Your task to perform on an android device: Open network settings Image 0: 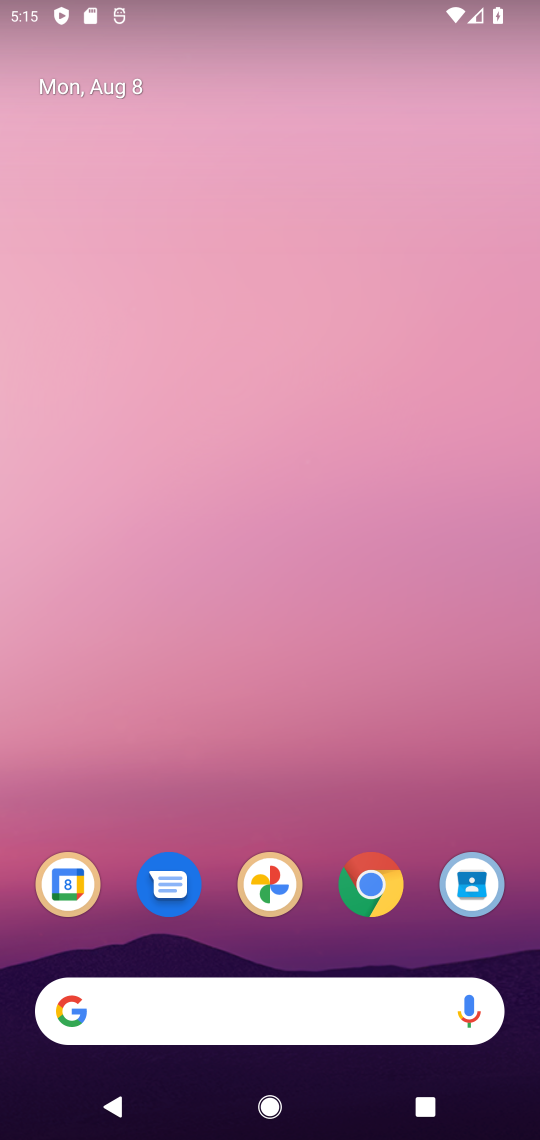
Step 0: drag from (265, 14) to (326, 13)
Your task to perform on an android device: Open network settings Image 1: 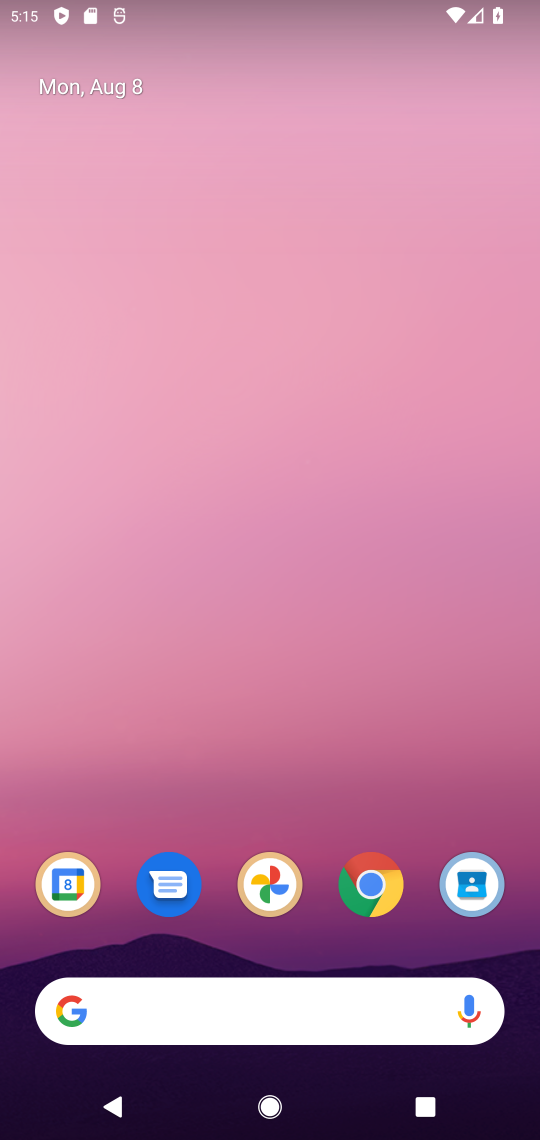
Step 1: drag from (320, 845) to (314, 98)
Your task to perform on an android device: Open network settings Image 2: 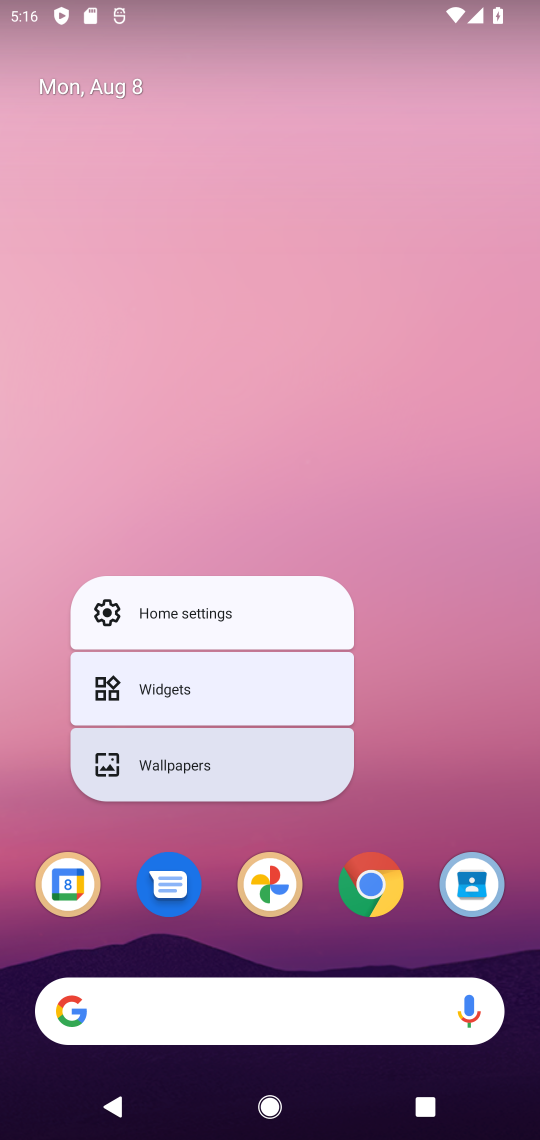
Step 2: drag from (415, 829) to (384, 237)
Your task to perform on an android device: Open network settings Image 3: 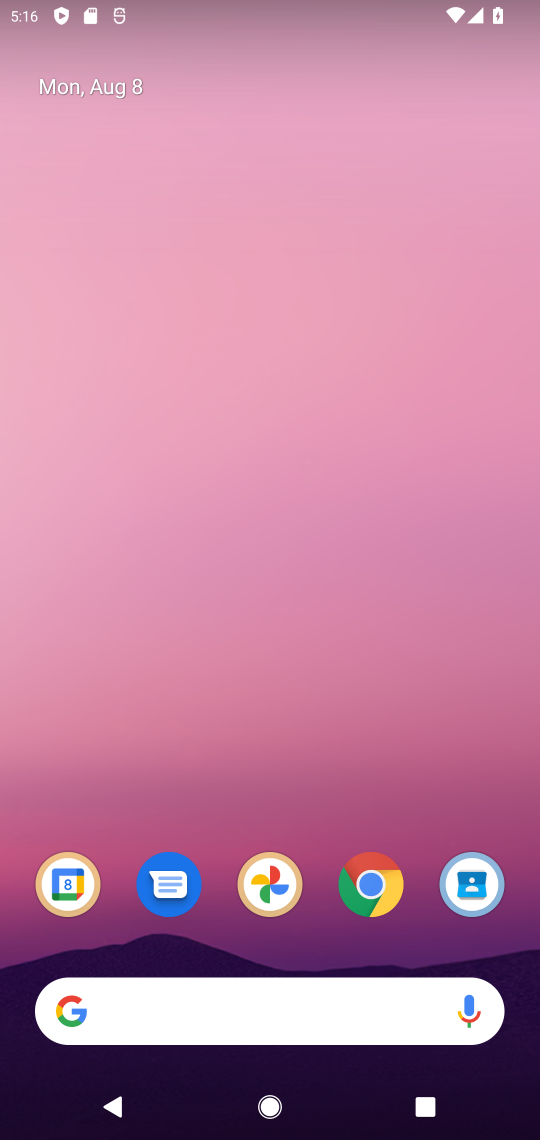
Step 3: drag from (330, 824) to (282, 58)
Your task to perform on an android device: Open network settings Image 4: 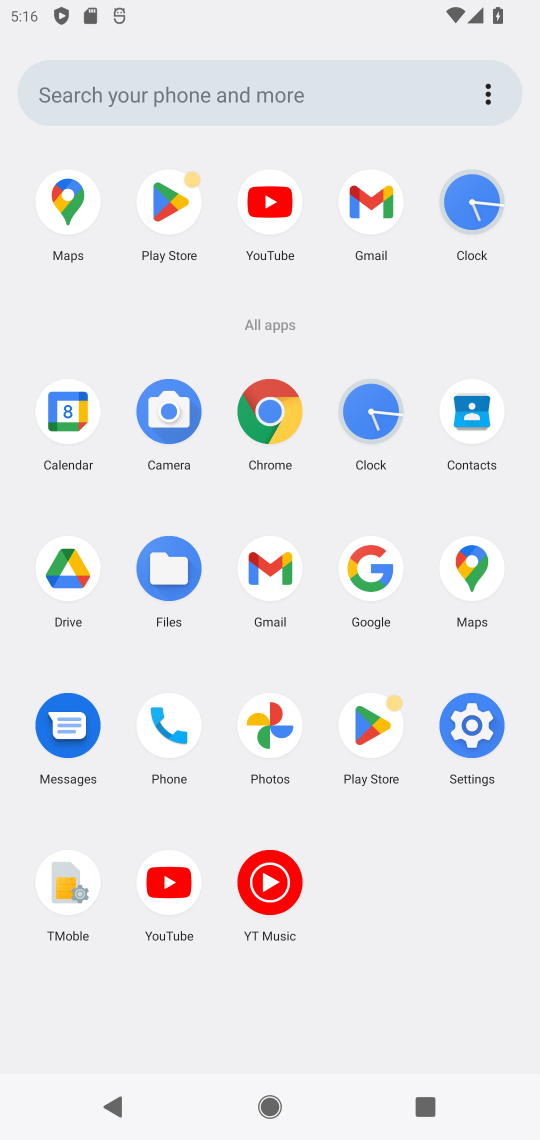
Step 4: click (476, 748)
Your task to perform on an android device: Open network settings Image 5: 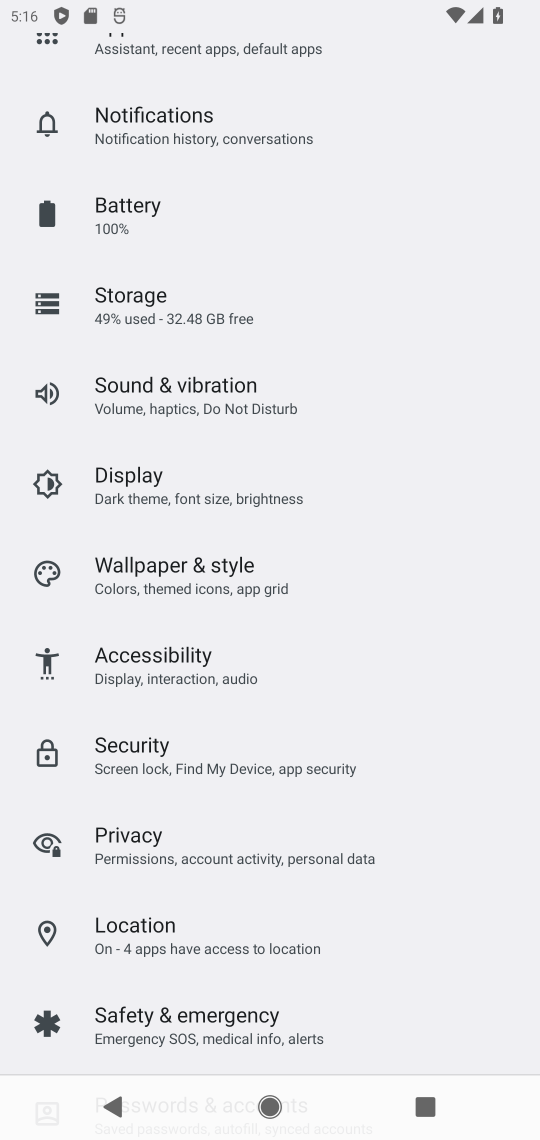
Step 5: drag from (277, 249) to (209, 1133)
Your task to perform on an android device: Open network settings Image 6: 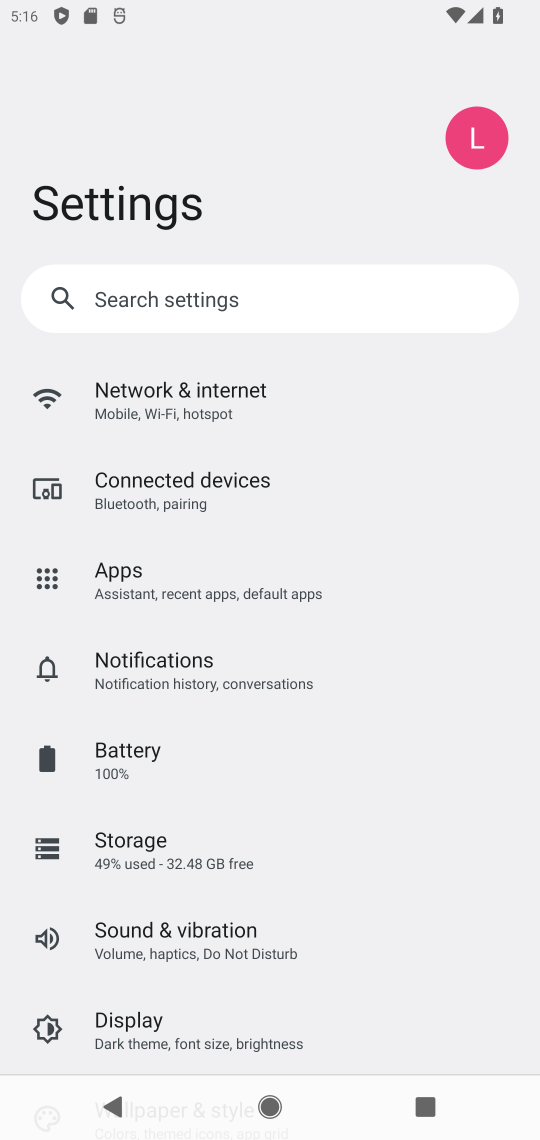
Step 6: click (256, 413)
Your task to perform on an android device: Open network settings Image 7: 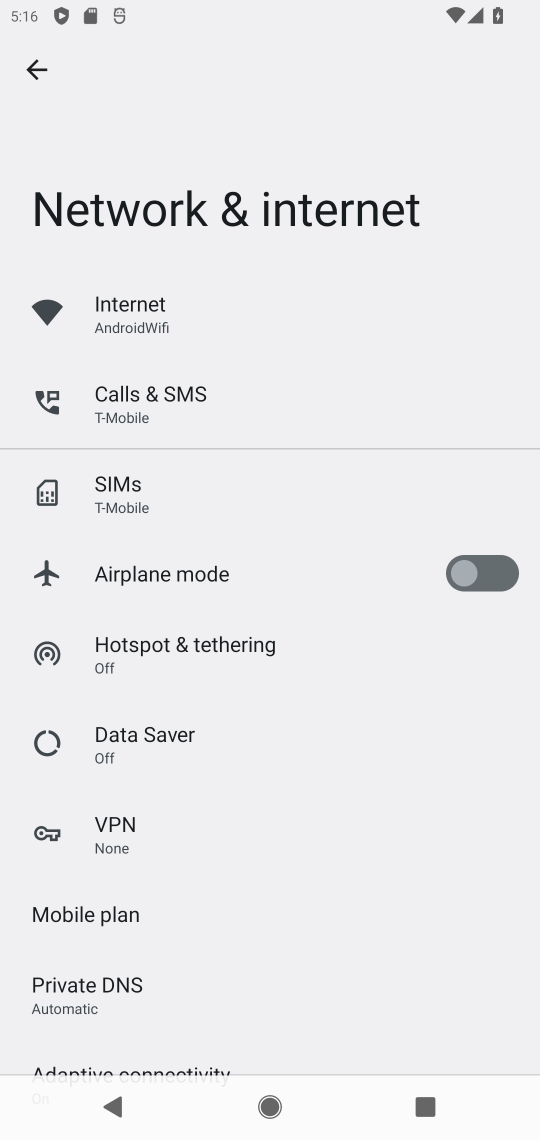
Step 7: task complete